Your task to perform on an android device: Play the last video I watched on Youtube Image 0: 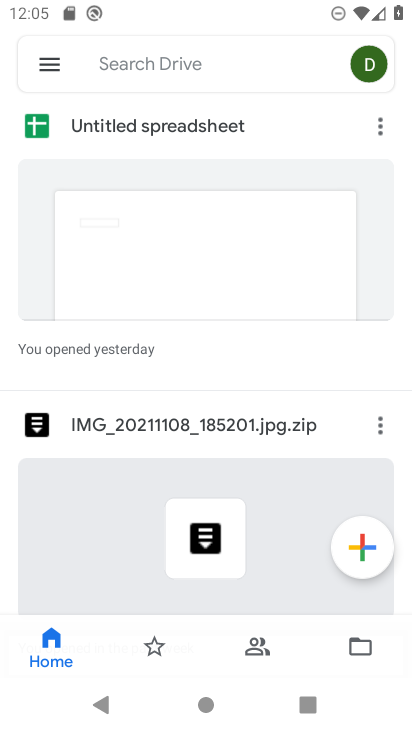
Step 0: press home button
Your task to perform on an android device: Play the last video I watched on Youtube Image 1: 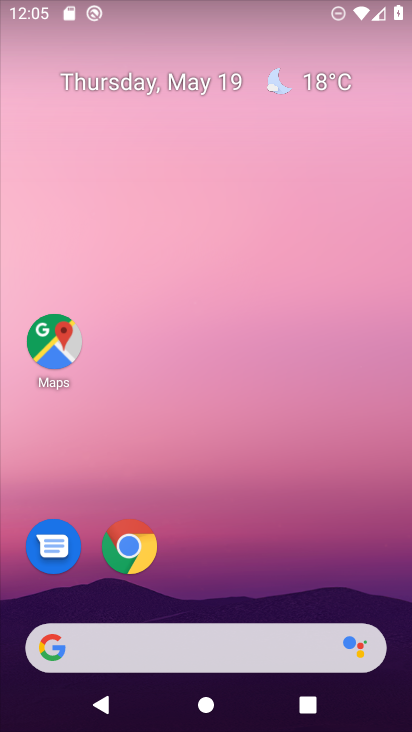
Step 1: drag from (227, 728) to (235, 159)
Your task to perform on an android device: Play the last video I watched on Youtube Image 2: 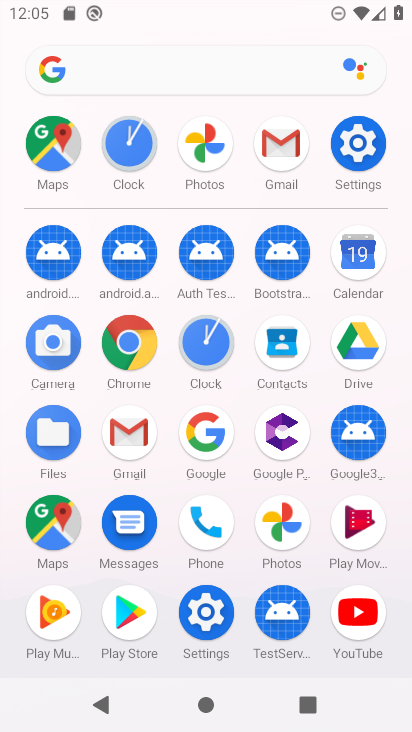
Step 2: click (360, 611)
Your task to perform on an android device: Play the last video I watched on Youtube Image 3: 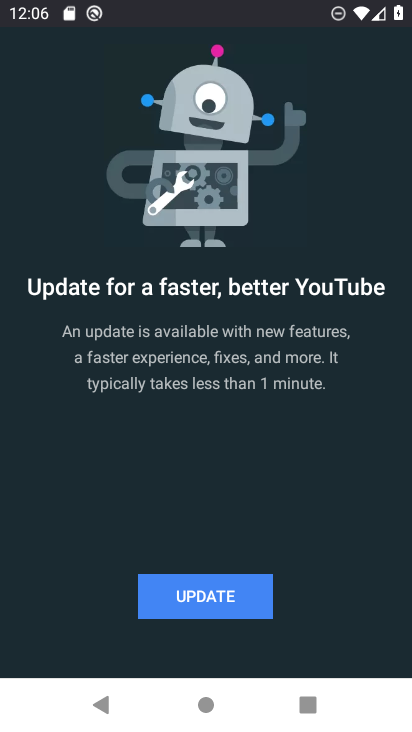
Step 3: click (200, 597)
Your task to perform on an android device: Play the last video I watched on Youtube Image 4: 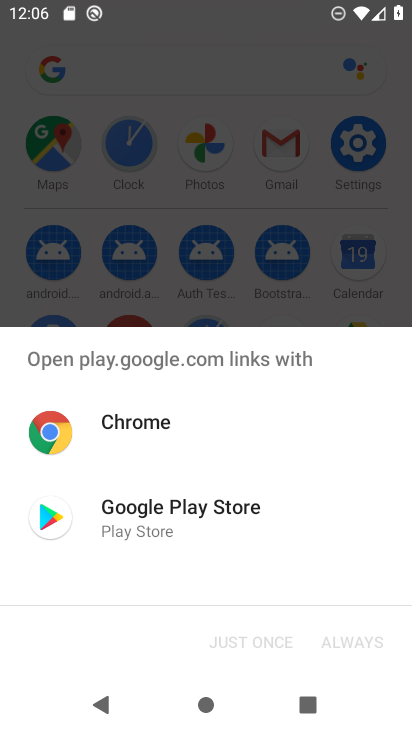
Step 4: click (124, 507)
Your task to perform on an android device: Play the last video I watched on Youtube Image 5: 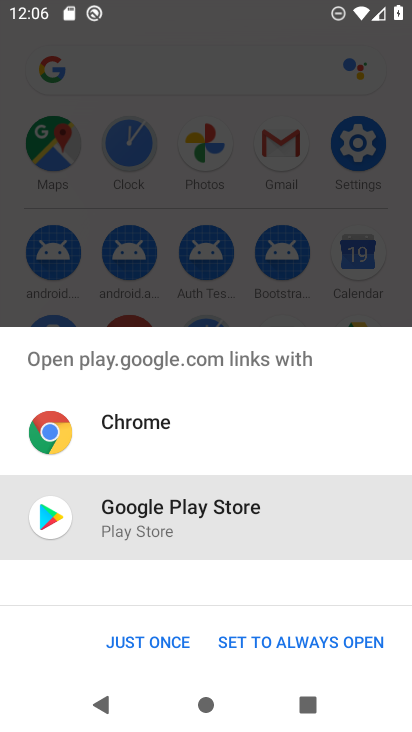
Step 5: click (157, 637)
Your task to perform on an android device: Play the last video I watched on Youtube Image 6: 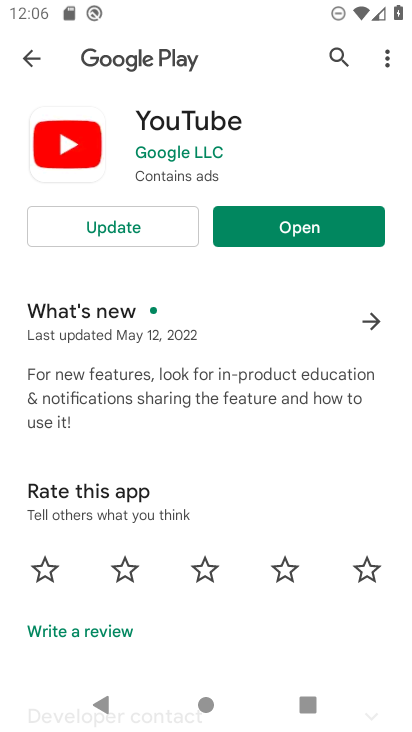
Step 6: click (161, 223)
Your task to perform on an android device: Play the last video I watched on Youtube Image 7: 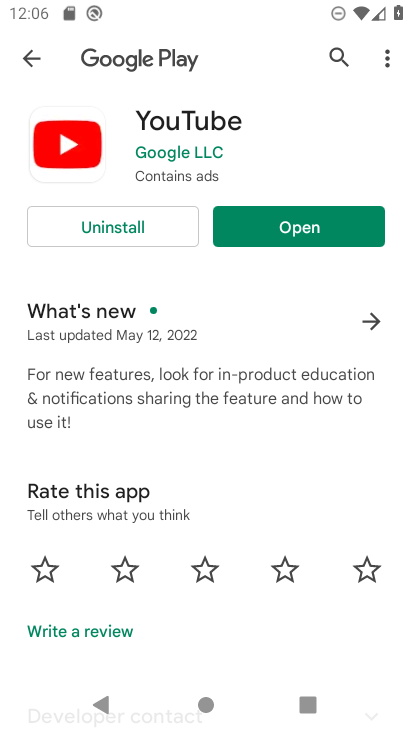
Step 7: click (303, 223)
Your task to perform on an android device: Play the last video I watched on Youtube Image 8: 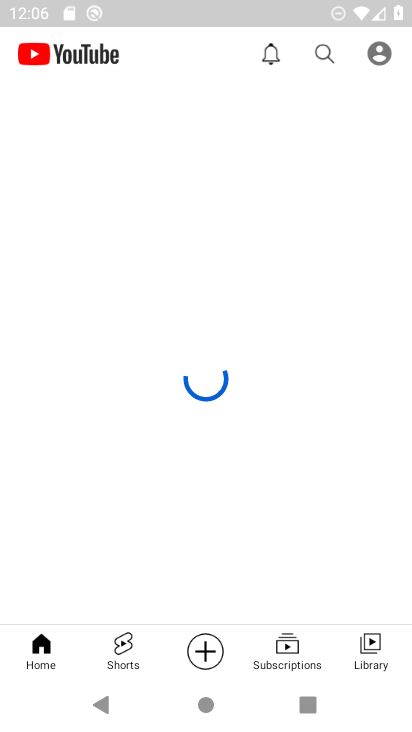
Step 8: click (356, 644)
Your task to perform on an android device: Play the last video I watched on Youtube Image 9: 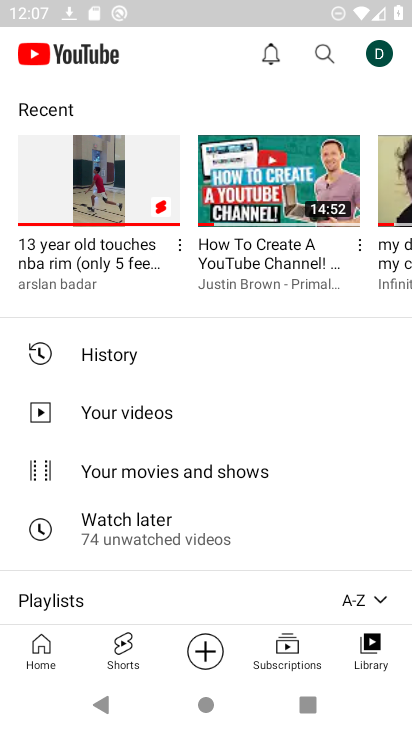
Step 9: click (98, 192)
Your task to perform on an android device: Play the last video I watched on Youtube Image 10: 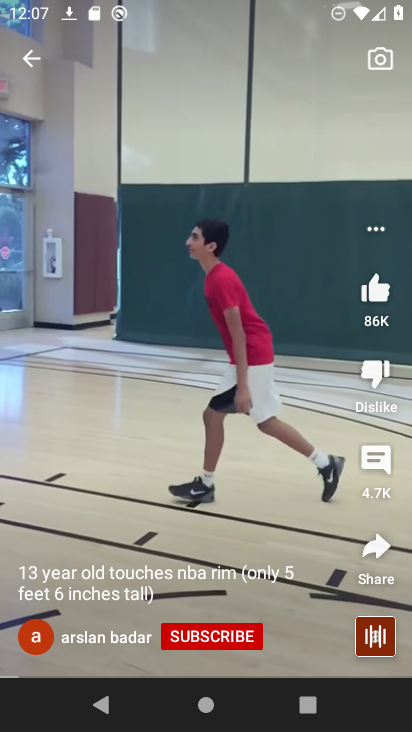
Step 10: task complete